Your task to perform on an android device: check the backup settings in the google photos Image 0: 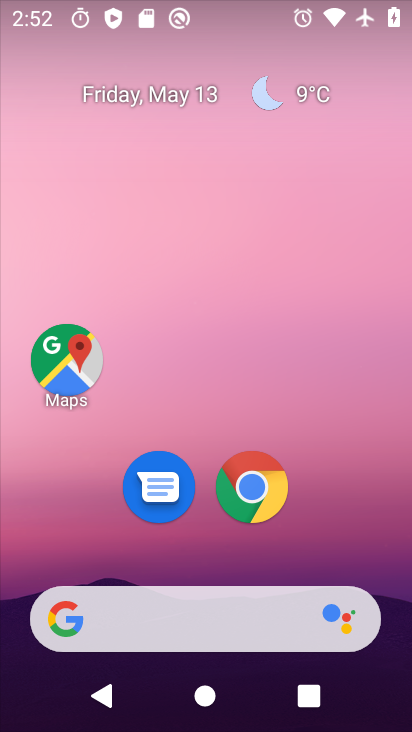
Step 0: drag from (213, 530) to (235, 88)
Your task to perform on an android device: check the backup settings in the google photos Image 1: 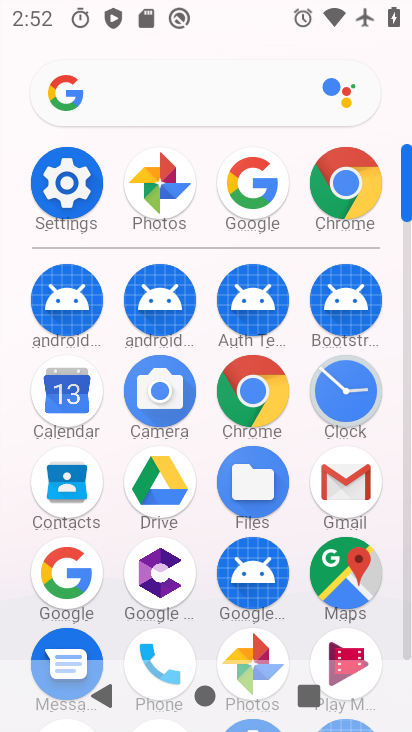
Step 1: click (162, 188)
Your task to perform on an android device: check the backup settings in the google photos Image 2: 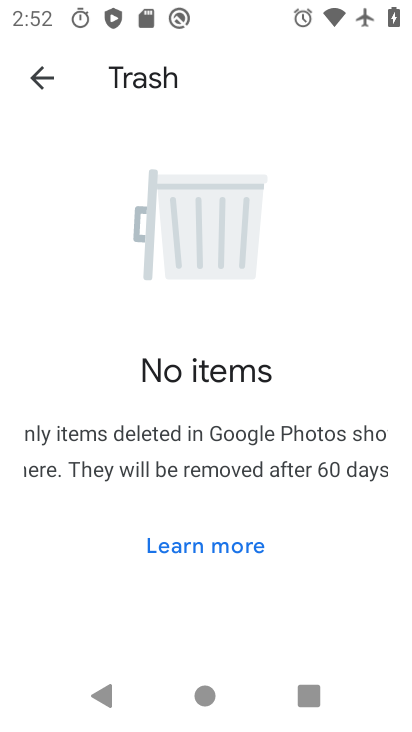
Step 2: press back button
Your task to perform on an android device: check the backup settings in the google photos Image 3: 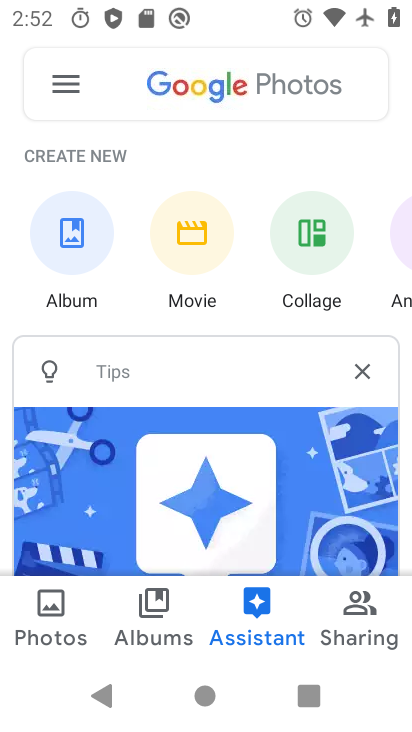
Step 3: click (74, 81)
Your task to perform on an android device: check the backup settings in the google photos Image 4: 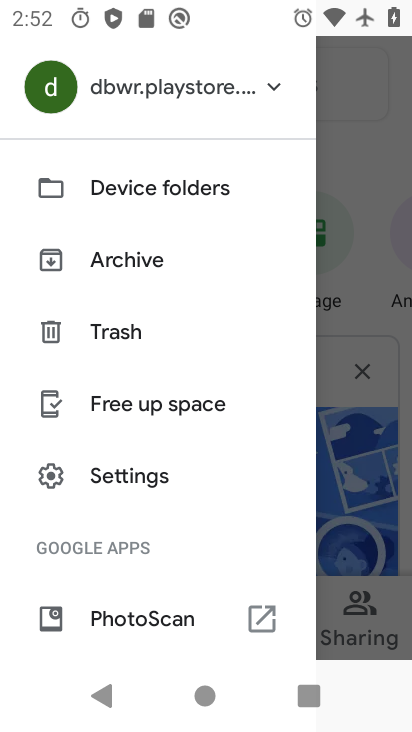
Step 4: click (164, 488)
Your task to perform on an android device: check the backup settings in the google photos Image 5: 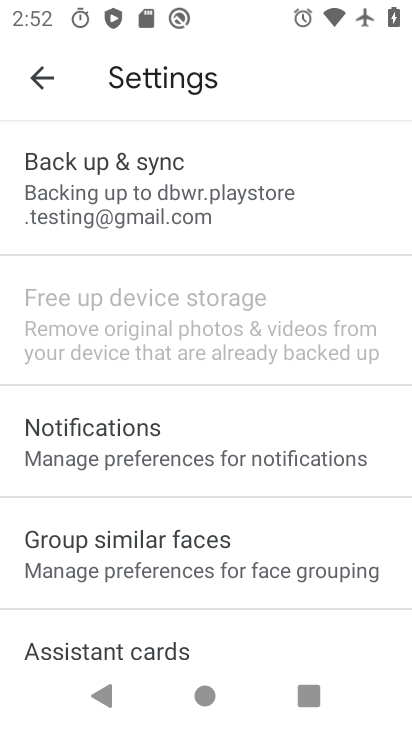
Step 5: click (174, 177)
Your task to perform on an android device: check the backup settings in the google photos Image 6: 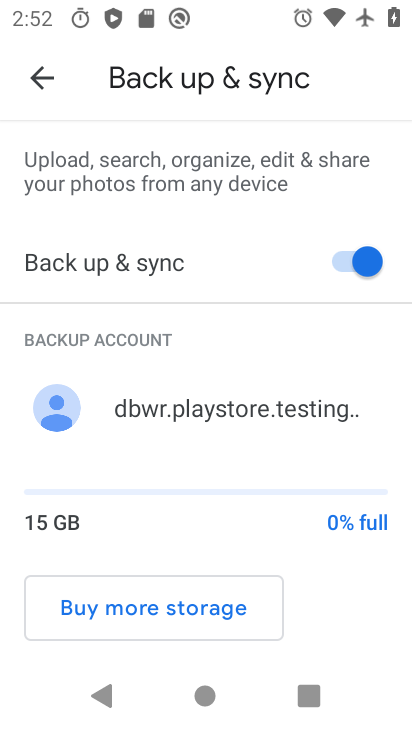
Step 6: task complete